Your task to perform on an android device: turn on sleep mode Image 0: 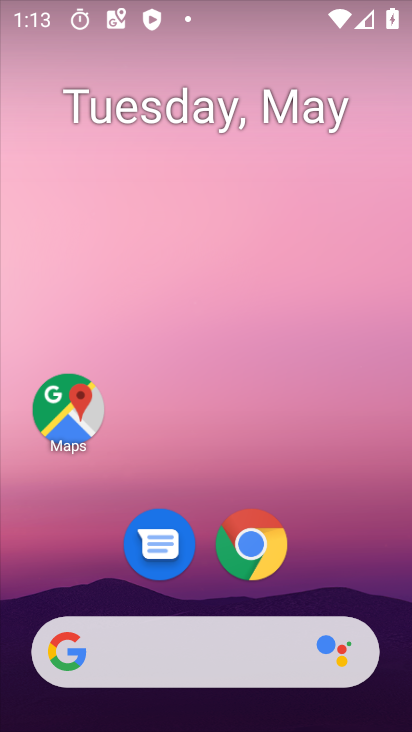
Step 0: drag from (216, 26) to (164, 583)
Your task to perform on an android device: turn on sleep mode Image 1: 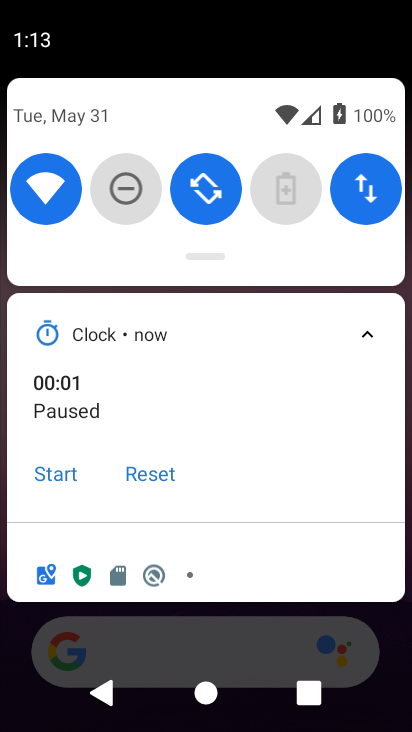
Step 1: drag from (198, 246) to (269, 677)
Your task to perform on an android device: turn on sleep mode Image 2: 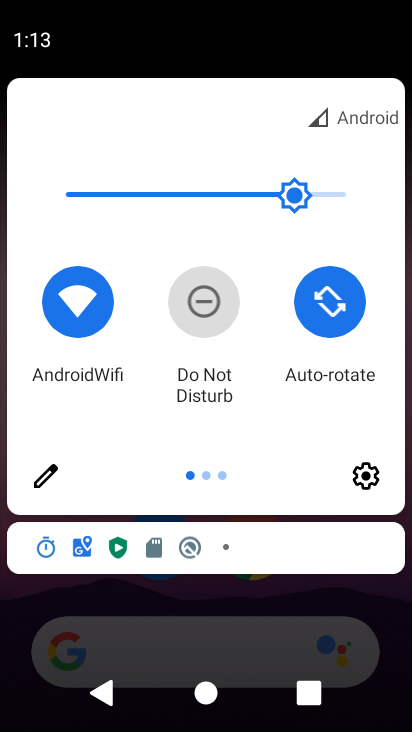
Step 2: click (48, 484)
Your task to perform on an android device: turn on sleep mode Image 3: 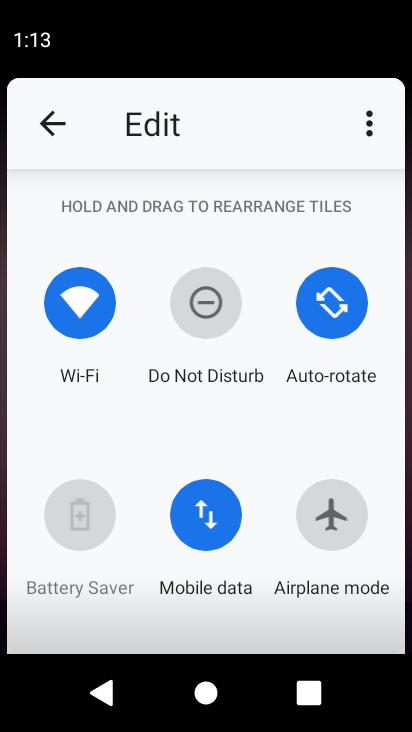
Step 3: task complete